Your task to perform on an android device: Do I have any events tomorrow? Image 0: 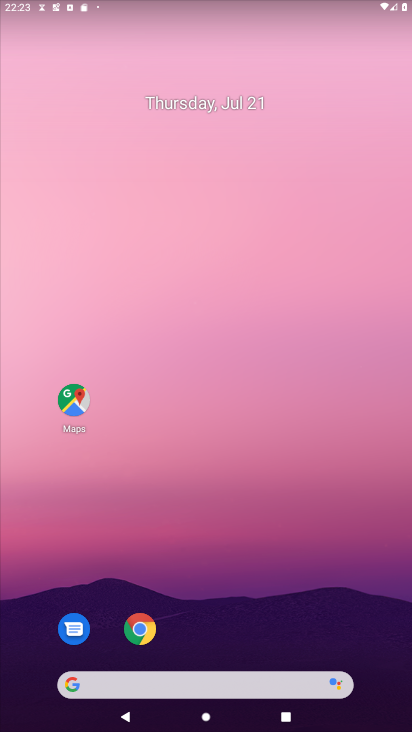
Step 0: click (367, 616)
Your task to perform on an android device: Do I have any events tomorrow? Image 1: 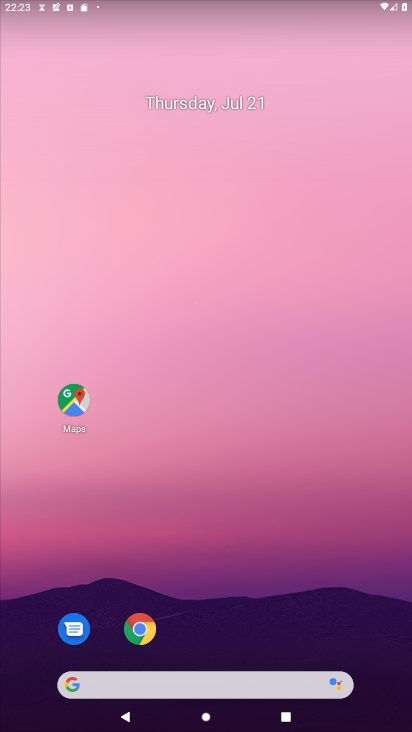
Step 1: drag from (335, 604) to (359, 55)
Your task to perform on an android device: Do I have any events tomorrow? Image 2: 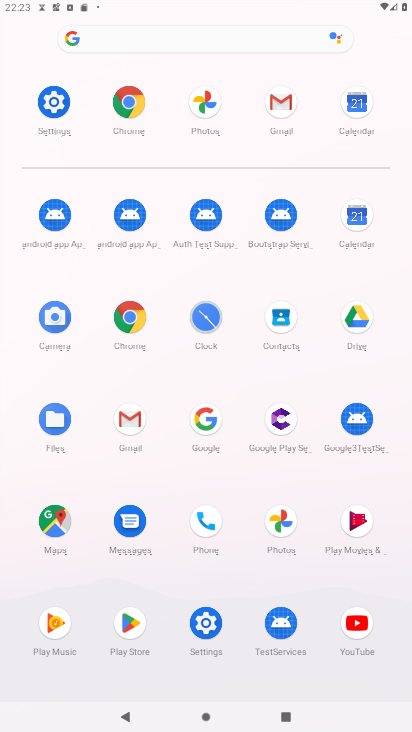
Step 2: click (365, 234)
Your task to perform on an android device: Do I have any events tomorrow? Image 3: 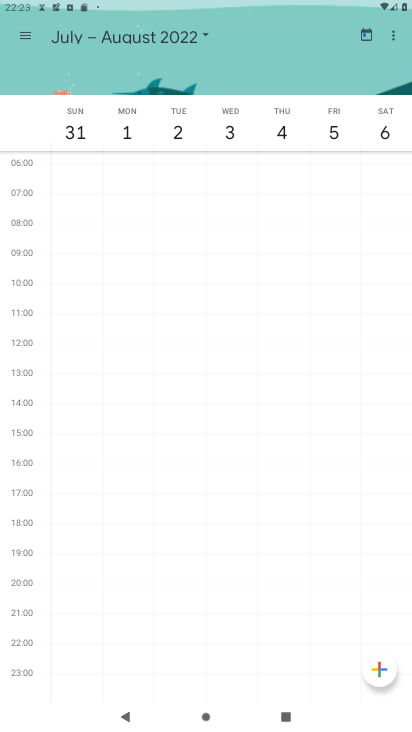
Step 3: click (17, 30)
Your task to perform on an android device: Do I have any events tomorrow? Image 4: 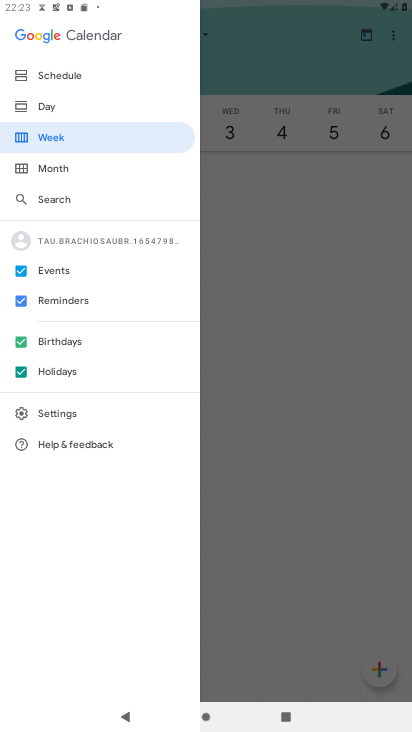
Step 4: click (87, 105)
Your task to perform on an android device: Do I have any events tomorrow? Image 5: 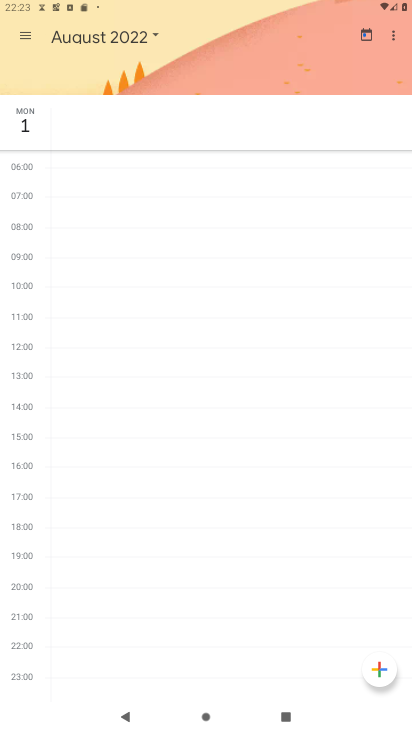
Step 5: click (110, 40)
Your task to perform on an android device: Do I have any events tomorrow? Image 6: 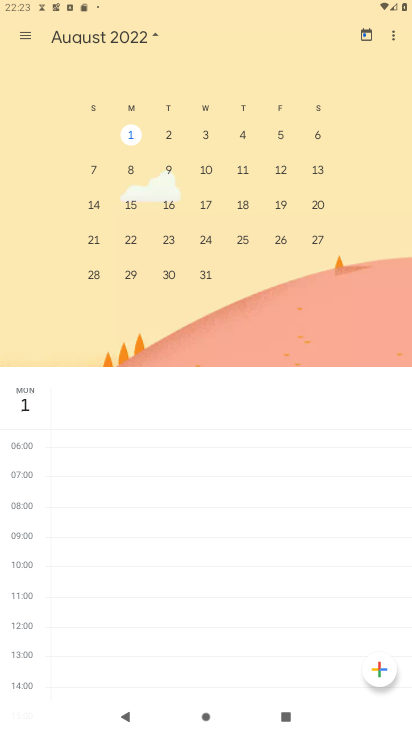
Step 6: drag from (84, 205) to (384, 244)
Your task to perform on an android device: Do I have any events tomorrow? Image 7: 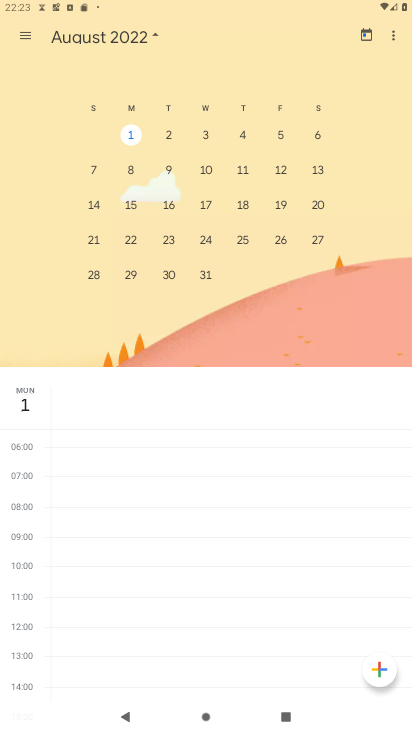
Step 7: drag from (118, 220) to (387, 248)
Your task to perform on an android device: Do I have any events tomorrow? Image 8: 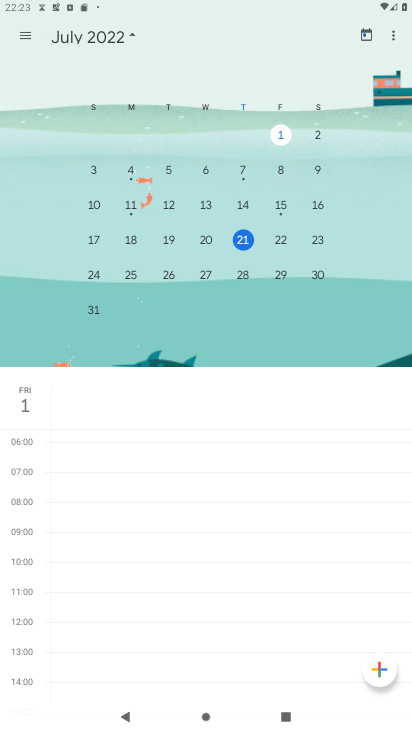
Step 8: click (167, 268)
Your task to perform on an android device: Do I have any events tomorrow? Image 9: 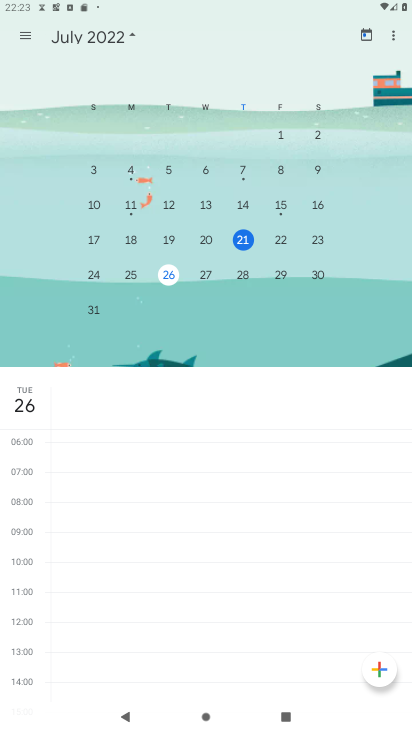
Step 9: click (241, 238)
Your task to perform on an android device: Do I have any events tomorrow? Image 10: 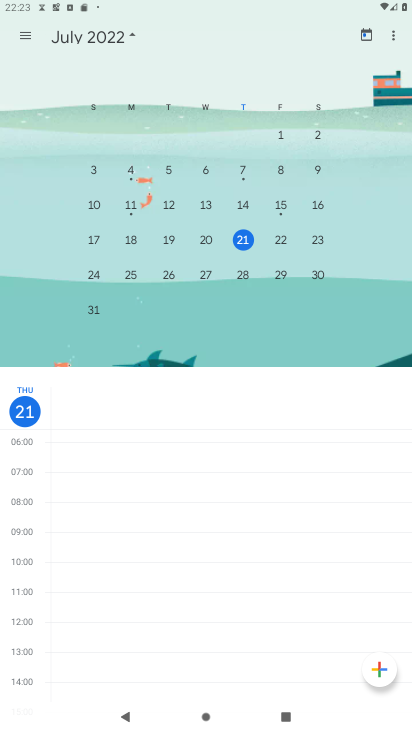
Step 10: click (94, 36)
Your task to perform on an android device: Do I have any events tomorrow? Image 11: 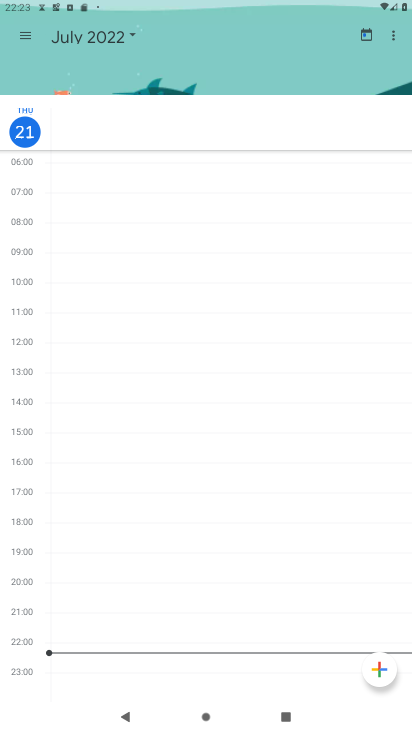
Step 11: task complete